Your task to perform on an android device: clear history in the chrome app Image 0: 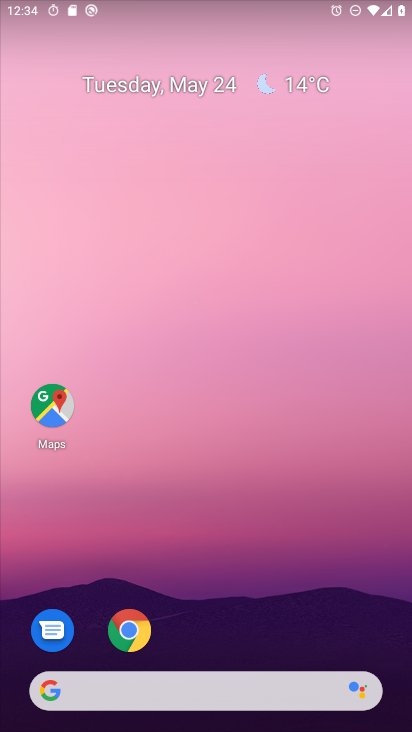
Step 0: drag from (334, 567) to (325, 103)
Your task to perform on an android device: clear history in the chrome app Image 1: 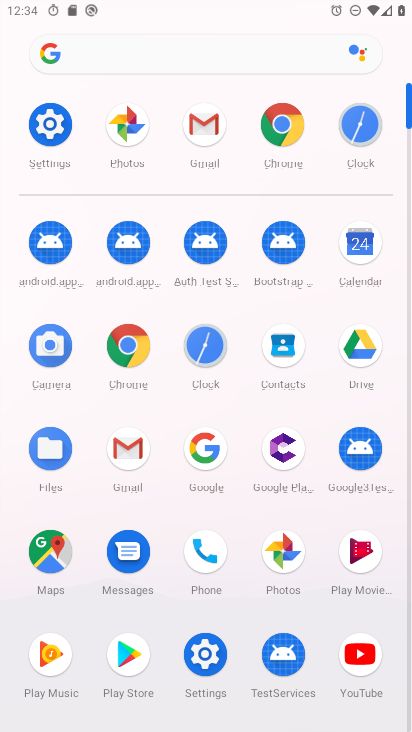
Step 1: click (301, 138)
Your task to perform on an android device: clear history in the chrome app Image 2: 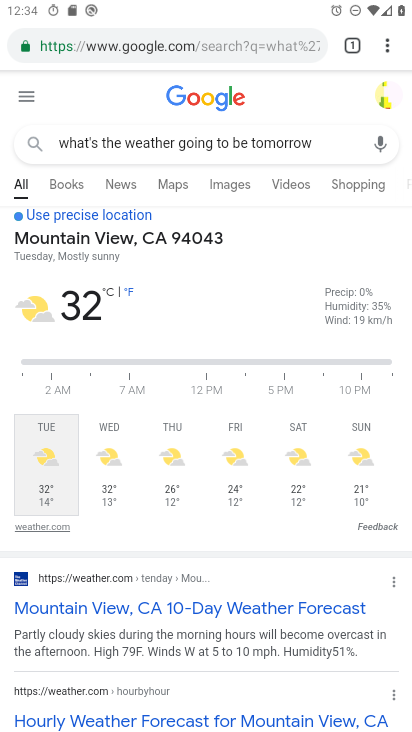
Step 2: drag from (384, 58) to (258, 511)
Your task to perform on an android device: clear history in the chrome app Image 3: 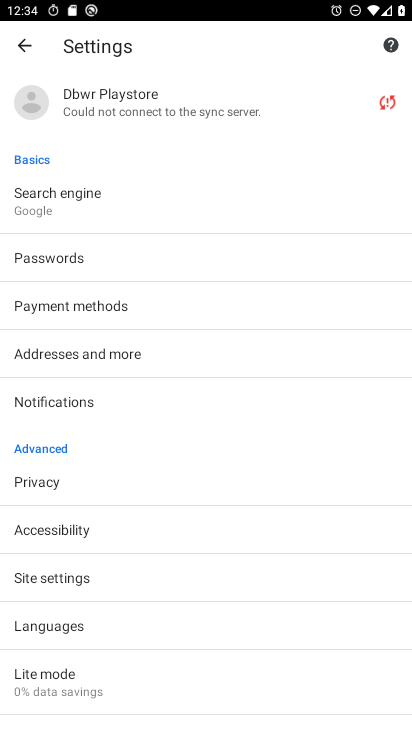
Step 3: click (15, 45)
Your task to perform on an android device: clear history in the chrome app Image 4: 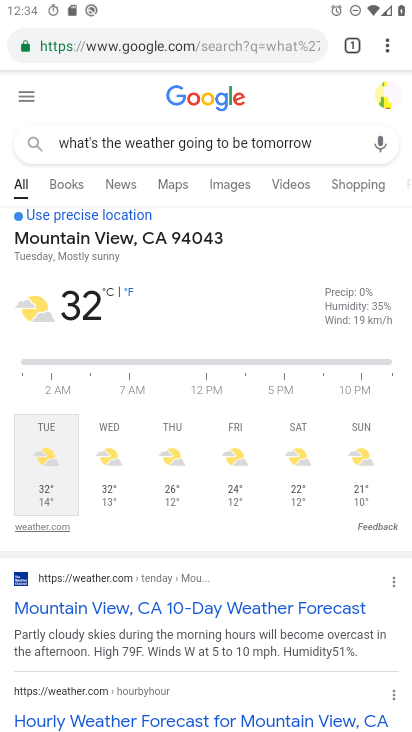
Step 4: drag from (382, 41) to (232, 250)
Your task to perform on an android device: clear history in the chrome app Image 5: 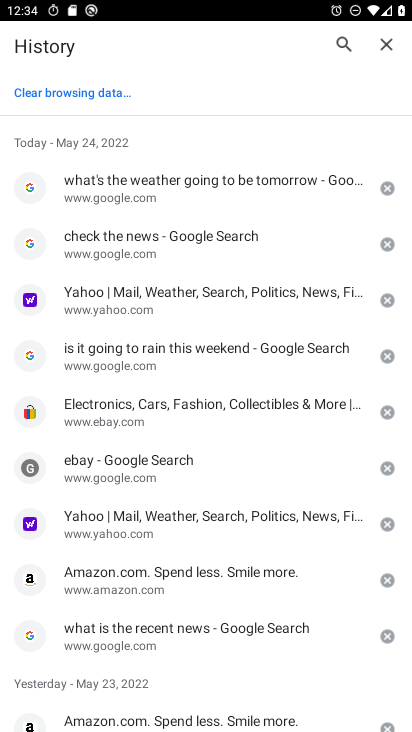
Step 5: click (92, 94)
Your task to perform on an android device: clear history in the chrome app Image 6: 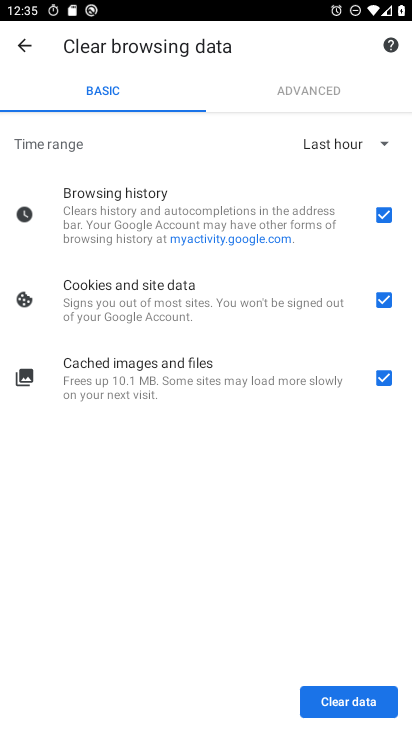
Step 6: click (356, 697)
Your task to perform on an android device: clear history in the chrome app Image 7: 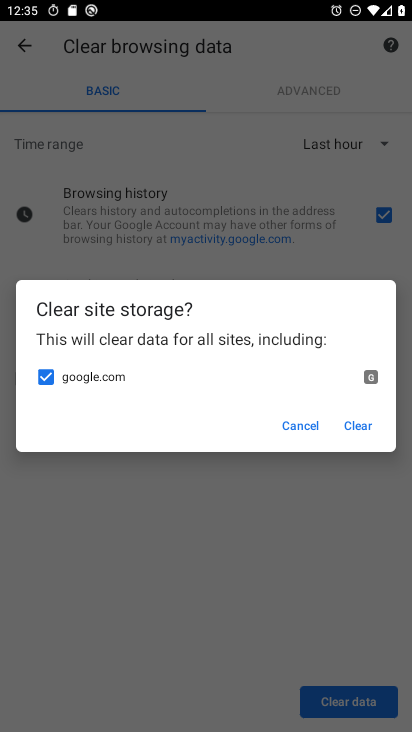
Step 7: click (363, 422)
Your task to perform on an android device: clear history in the chrome app Image 8: 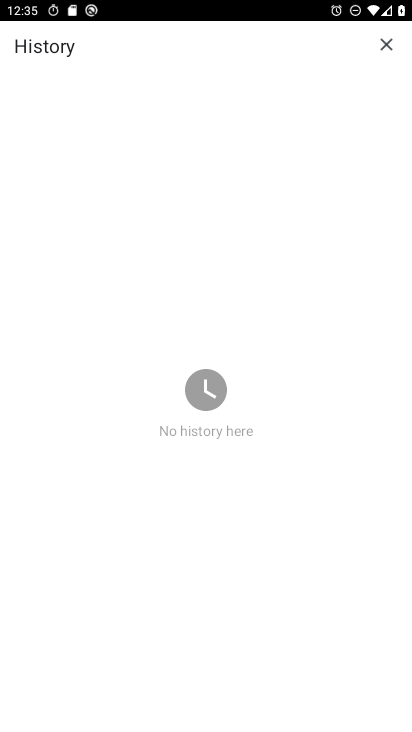
Step 8: task complete